Your task to perform on an android device: snooze an email in the gmail app Image 0: 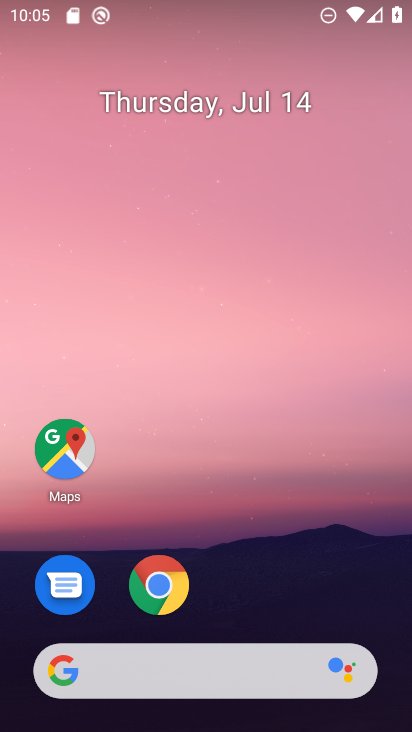
Step 0: drag from (224, 644) to (155, 60)
Your task to perform on an android device: snooze an email in the gmail app Image 1: 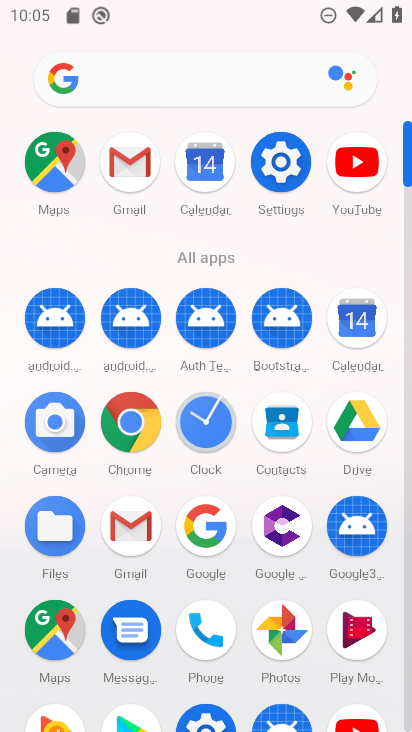
Step 1: click (128, 526)
Your task to perform on an android device: snooze an email in the gmail app Image 2: 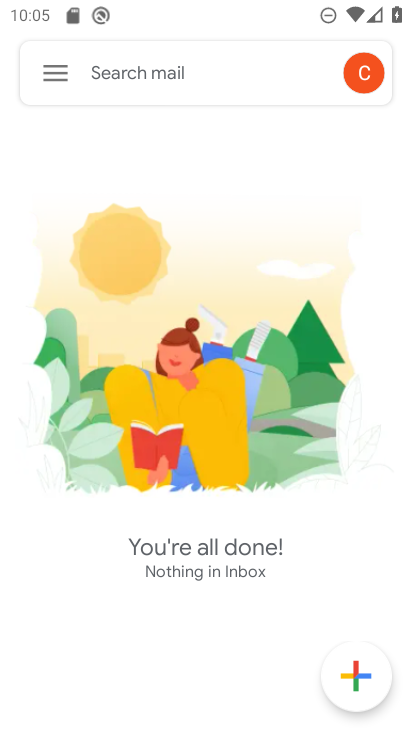
Step 2: click (64, 67)
Your task to perform on an android device: snooze an email in the gmail app Image 3: 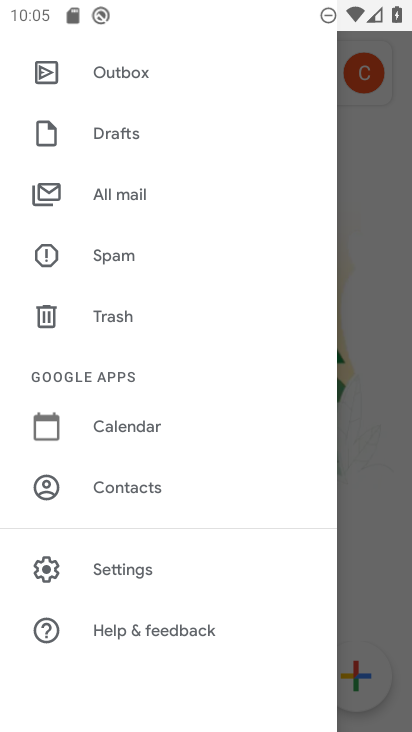
Step 3: drag from (128, 86) to (269, 627)
Your task to perform on an android device: snooze an email in the gmail app Image 4: 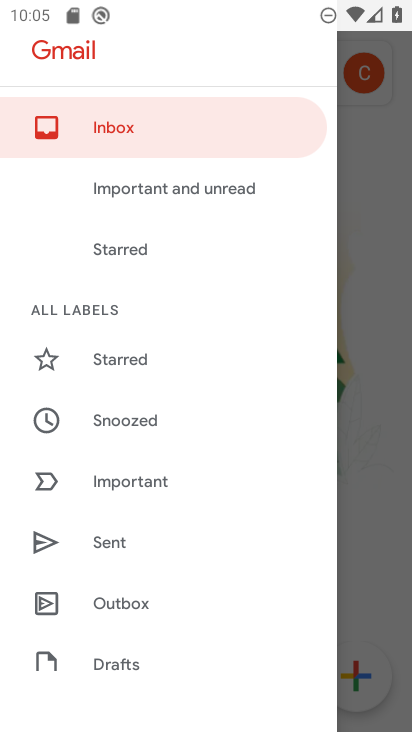
Step 4: click (115, 421)
Your task to perform on an android device: snooze an email in the gmail app Image 5: 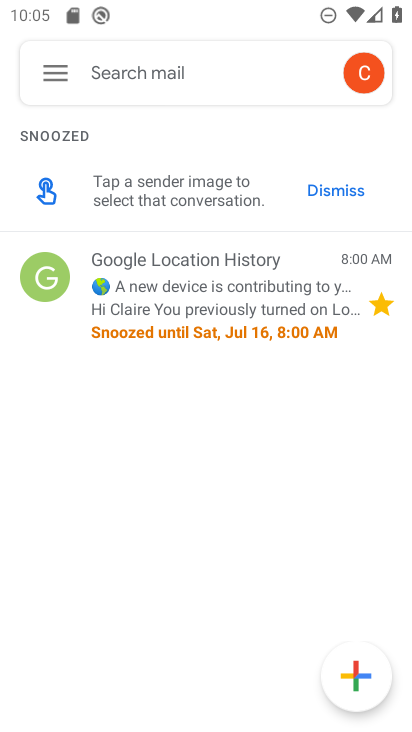
Step 5: click (57, 81)
Your task to perform on an android device: snooze an email in the gmail app Image 6: 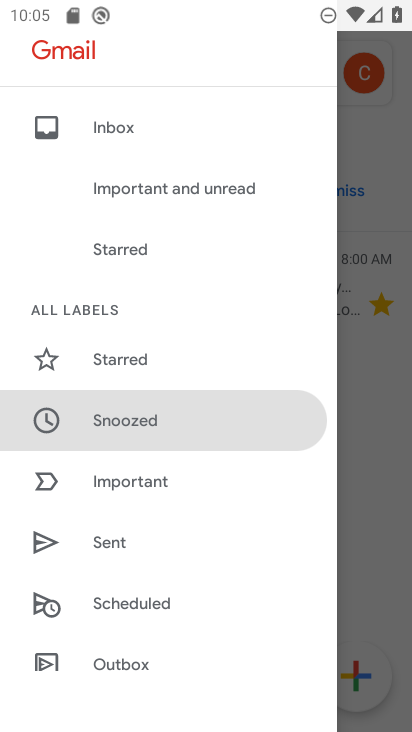
Step 6: click (131, 125)
Your task to perform on an android device: snooze an email in the gmail app Image 7: 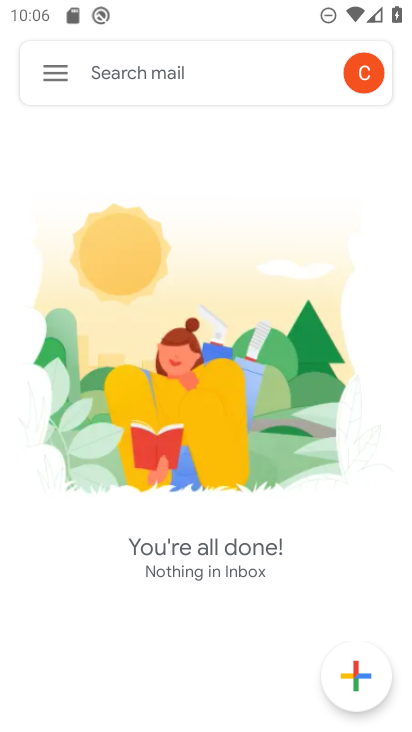
Step 7: task complete